Your task to perform on an android device: set the timer Image 0: 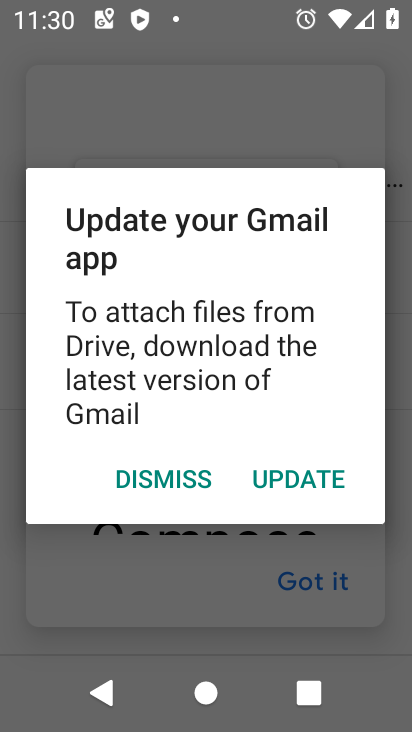
Step 0: press home button
Your task to perform on an android device: set the timer Image 1: 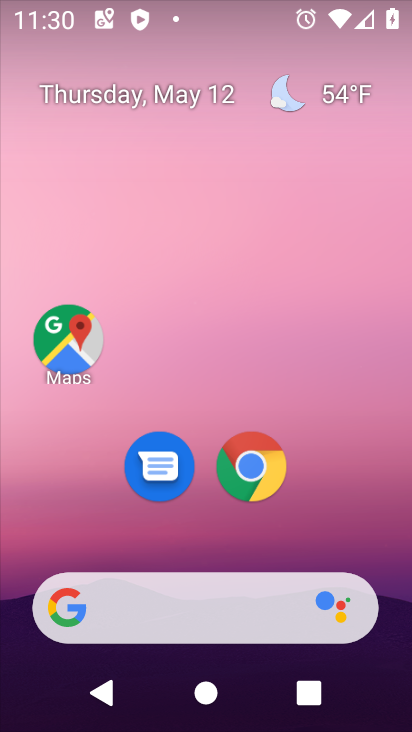
Step 1: drag from (348, 518) to (365, 151)
Your task to perform on an android device: set the timer Image 2: 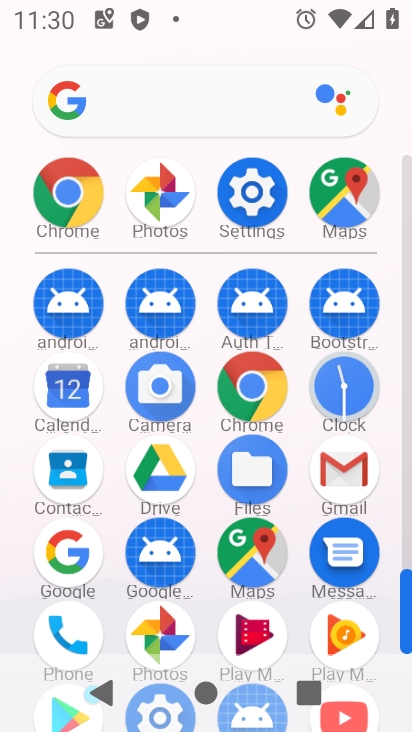
Step 2: click (314, 390)
Your task to perform on an android device: set the timer Image 3: 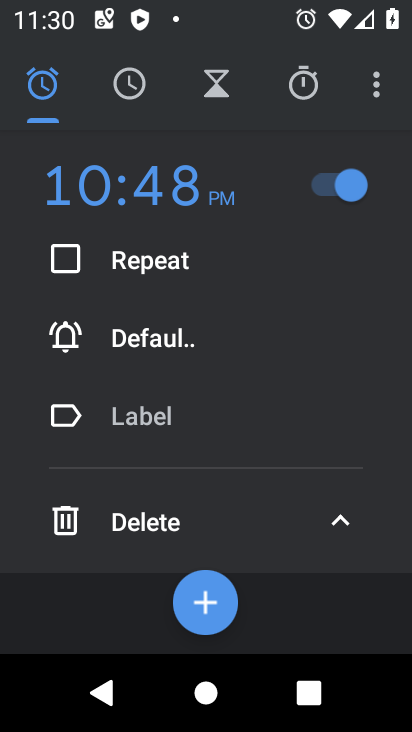
Step 3: click (220, 98)
Your task to perform on an android device: set the timer Image 4: 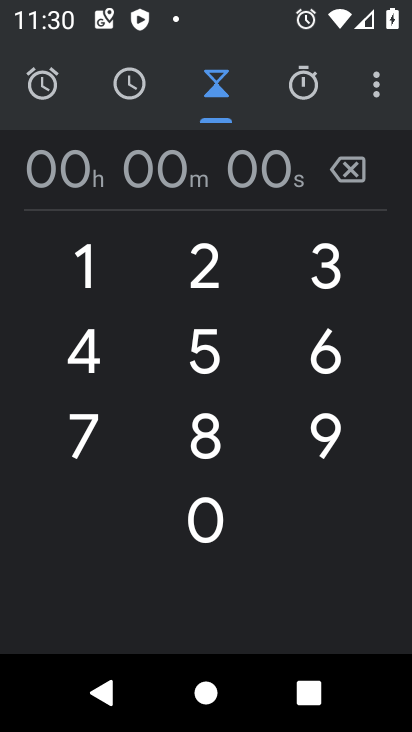
Step 4: click (82, 268)
Your task to perform on an android device: set the timer Image 5: 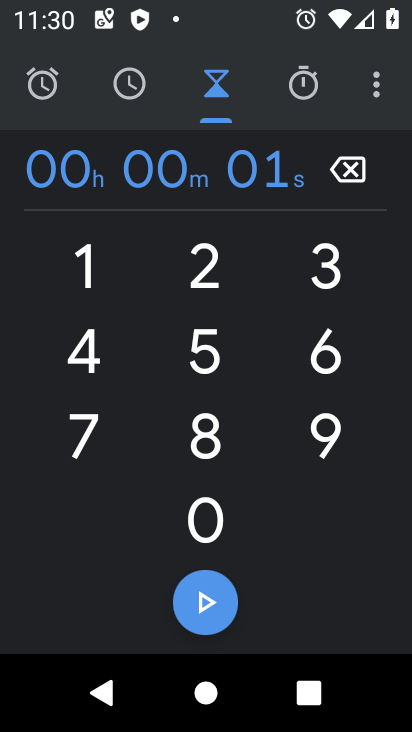
Step 5: click (187, 366)
Your task to perform on an android device: set the timer Image 6: 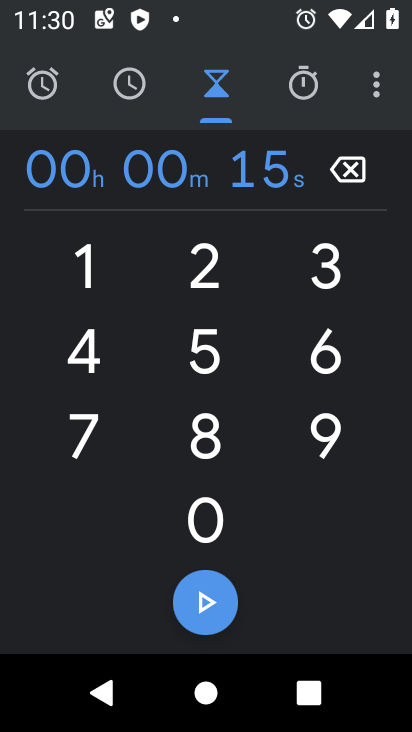
Step 6: click (222, 625)
Your task to perform on an android device: set the timer Image 7: 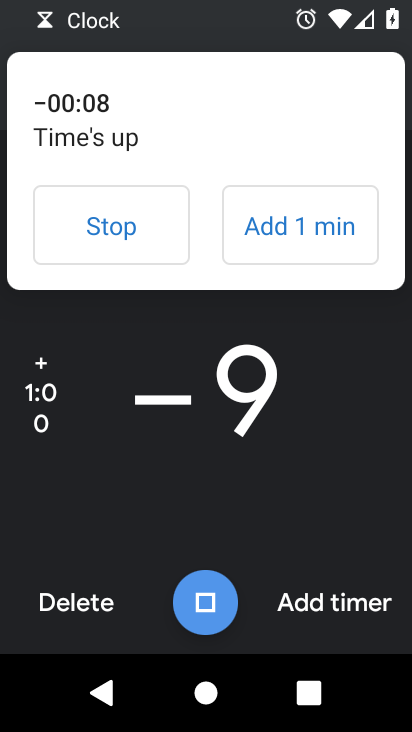
Step 7: click (100, 246)
Your task to perform on an android device: set the timer Image 8: 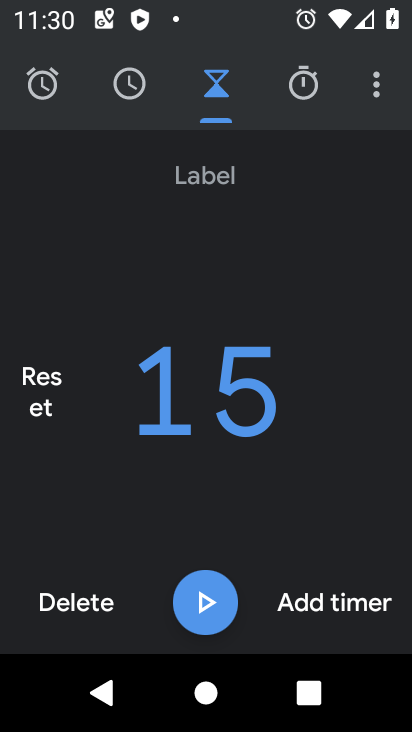
Step 8: task complete